Your task to perform on an android device: toggle data saver in the chrome app Image 0: 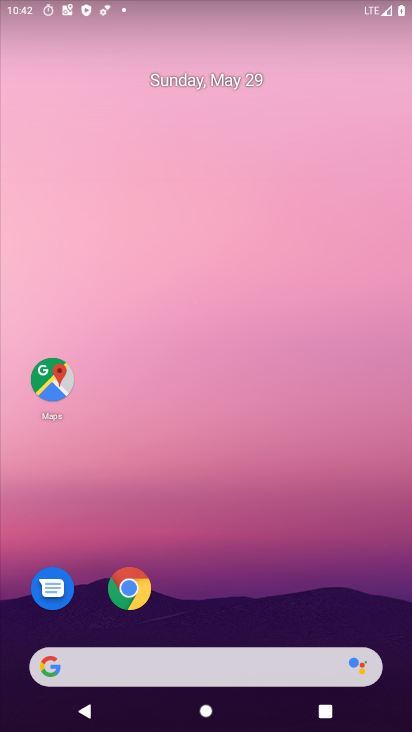
Step 0: drag from (269, 573) to (306, 192)
Your task to perform on an android device: toggle data saver in the chrome app Image 1: 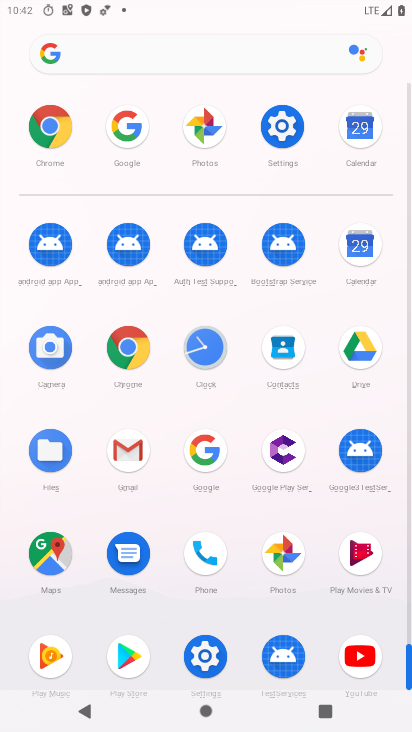
Step 1: click (142, 357)
Your task to perform on an android device: toggle data saver in the chrome app Image 2: 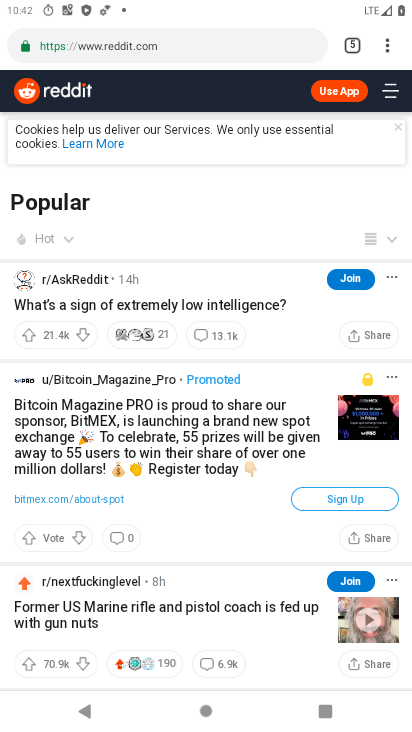
Step 2: click (391, 50)
Your task to perform on an android device: toggle data saver in the chrome app Image 3: 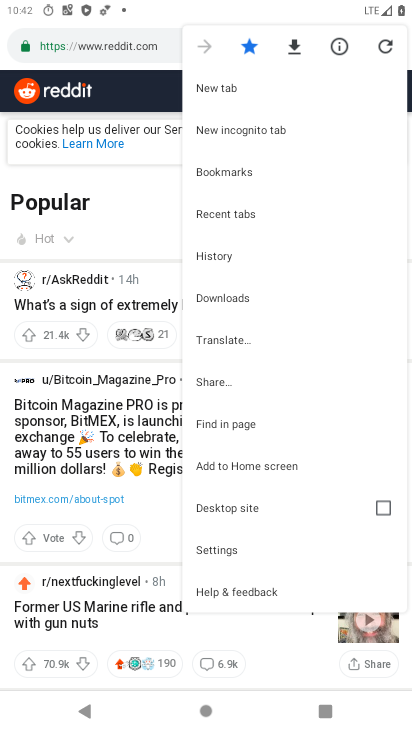
Step 3: click (244, 543)
Your task to perform on an android device: toggle data saver in the chrome app Image 4: 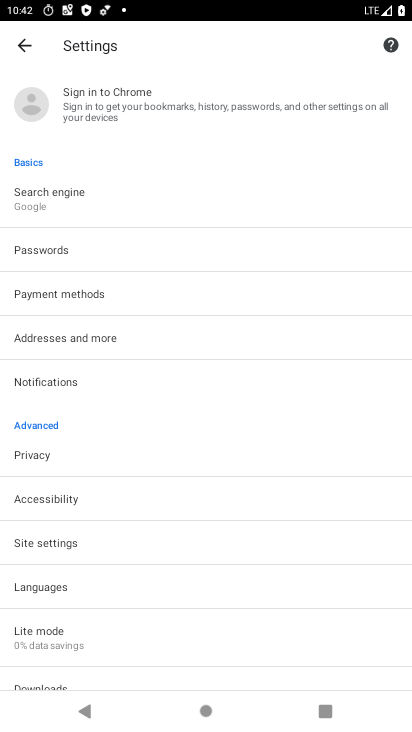
Step 4: click (80, 636)
Your task to perform on an android device: toggle data saver in the chrome app Image 5: 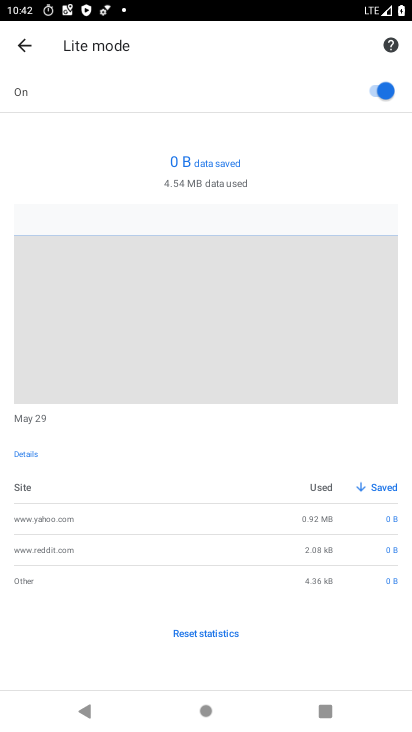
Step 5: click (383, 95)
Your task to perform on an android device: toggle data saver in the chrome app Image 6: 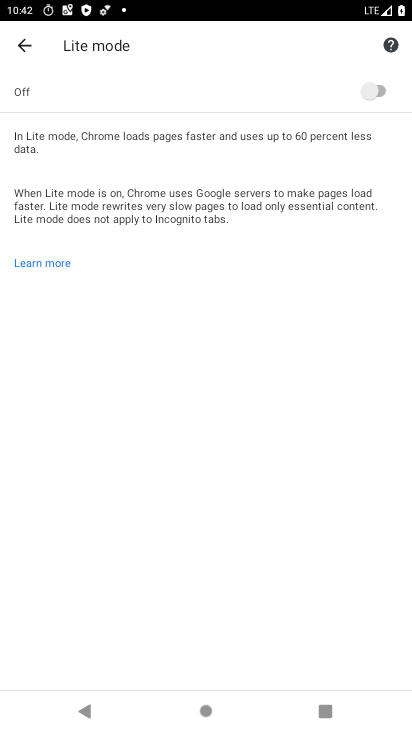
Step 6: task complete